Your task to perform on an android device: open a bookmark in the chrome app Image 0: 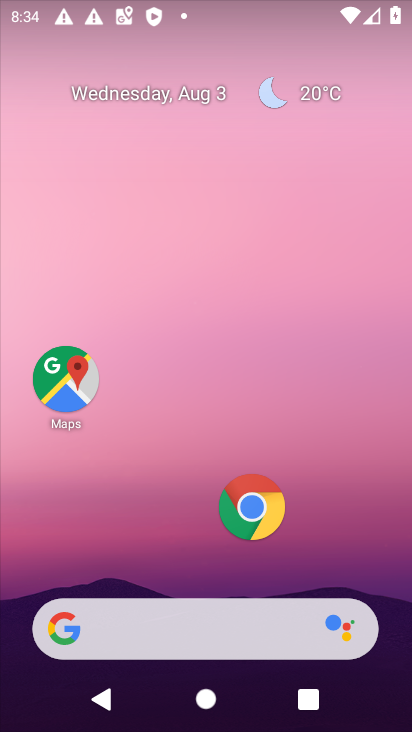
Step 0: click (249, 508)
Your task to perform on an android device: open a bookmark in the chrome app Image 1: 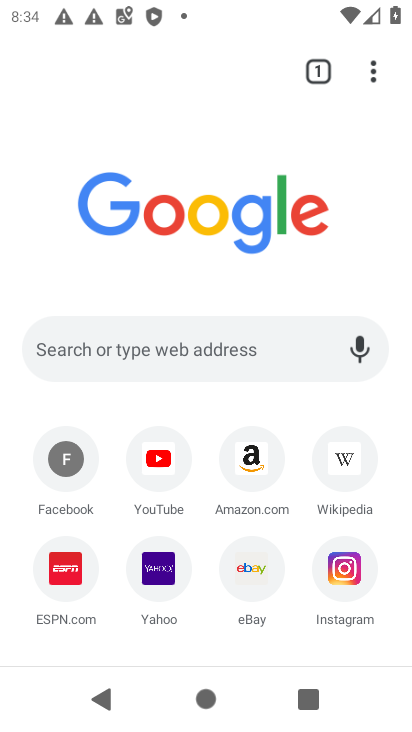
Step 1: click (371, 79)
Your task to perform on an android device: open a bookmark in the chrome app Image 2: 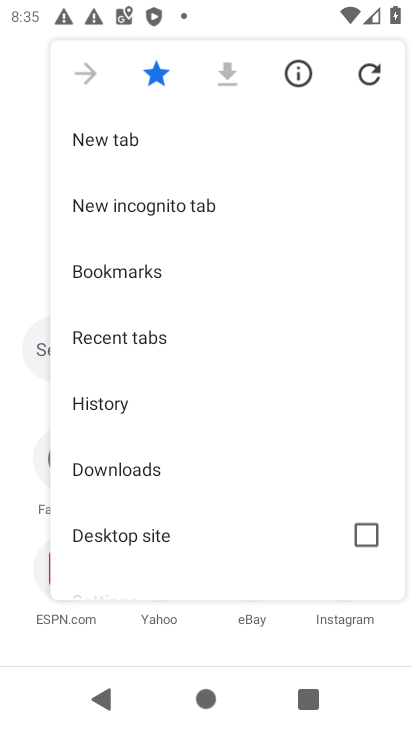
Step 2: click (82, 278)
Your task to perform on an android device: open a bookmark in the chrome app Image 3: 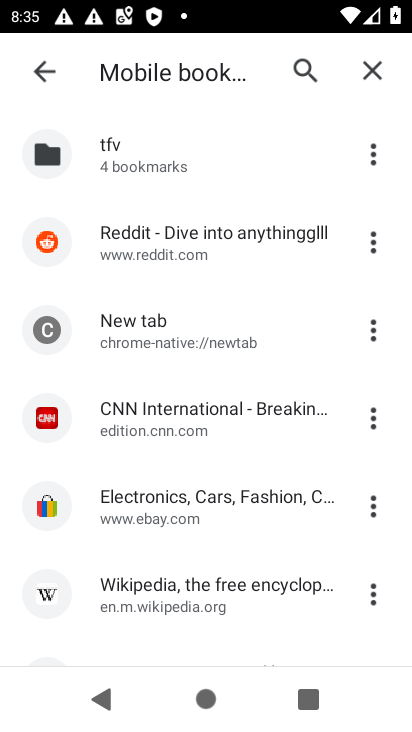
Step 3: task complete